Your task to perform on an android device: Go to privacy settings Image 0: 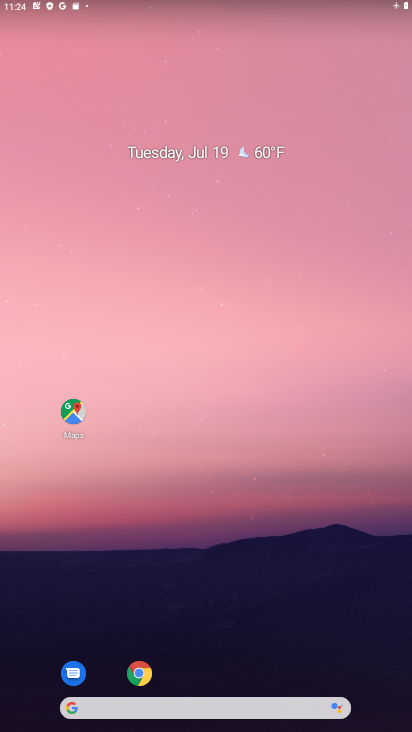
Step 0: drag from (358, 679) to (265, 126)
Your task to perform on an android device: Go to privacy settings Image 1: 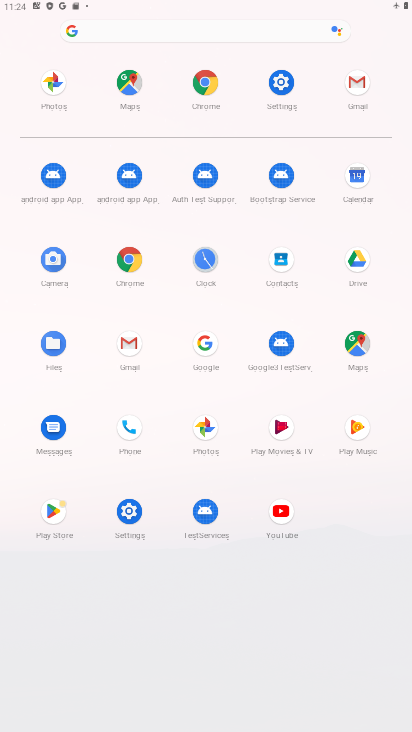
Step 1: click (130, 511)
Your task to perform on an android device: Go to privacy settings Image 2: 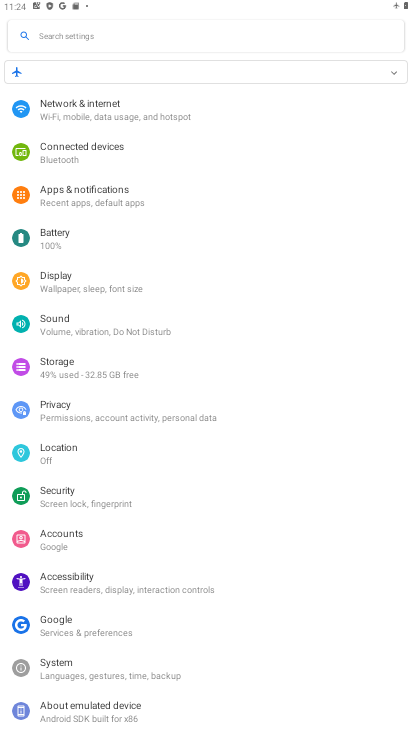
Step 2: click (55, 410)
Your task to perform on an android device: Go to privacy settings Image 3: 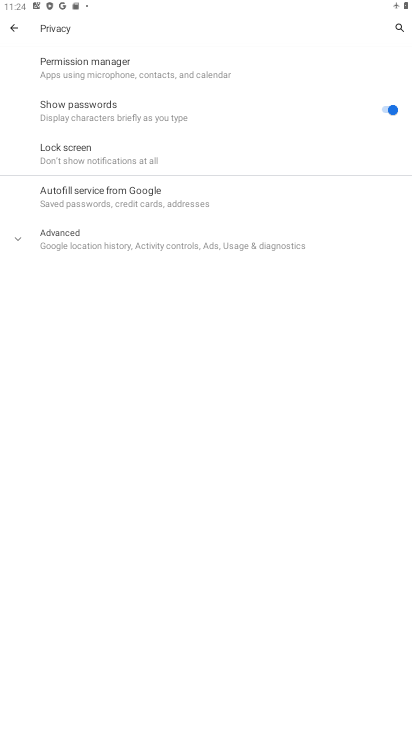
Step 3: click (13, 236)
Your task to perform on an android device: Go to privacy settings Image 4: 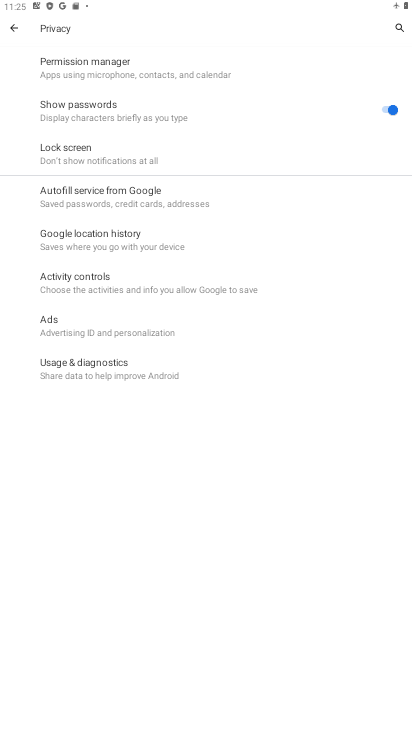
Step 4: task complete